Your task to perform on an android device: Search for pizza restaurants on Maps Image 0: 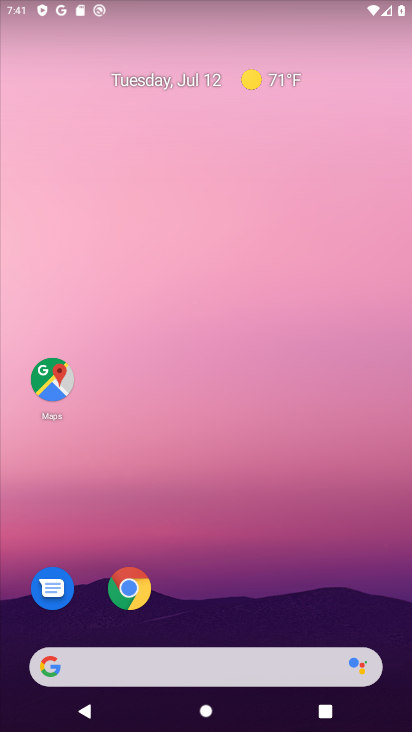
Step 0: click (57, 388)
Your task to perform on an android device: Search for pizza restaurants on Maps Image 1: 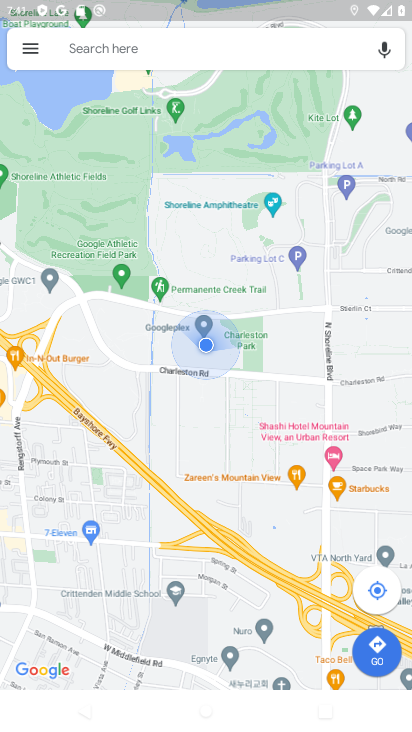
Step 1: click (104, 57)
Your task to perform on an android device: Search for pizza restaurants on Maps Image 2: 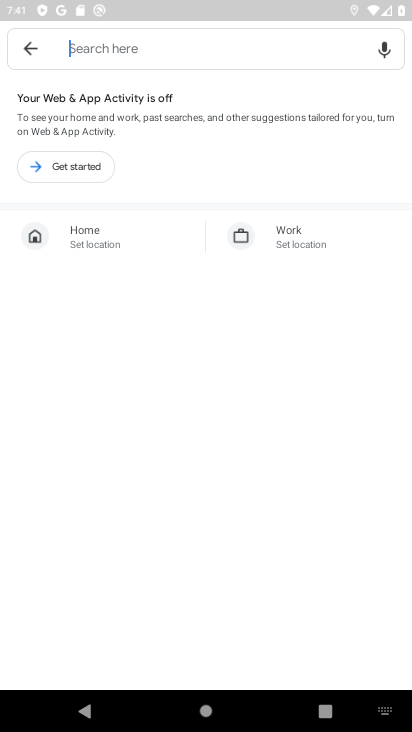
Step 2: type "pizza restaurants"
Your task to perform on an android device: Search for pizza restaurants on Maps Image 3: 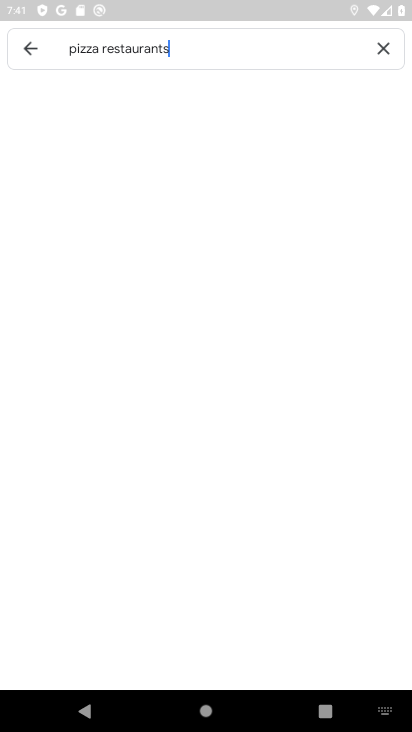
Step 3: type ""
Your task to perform on an android device: Search for pizza restaurants on Maps Image 4: 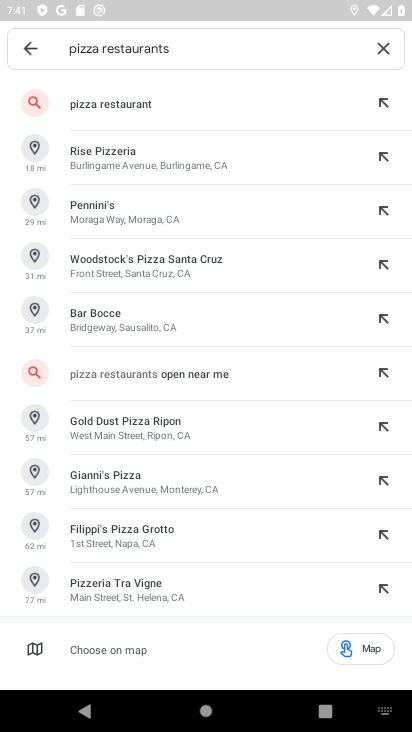
Step 4: click (137, 104)
Your task to perform on an android device: Search for pizza restaurants on Maps Image 5: 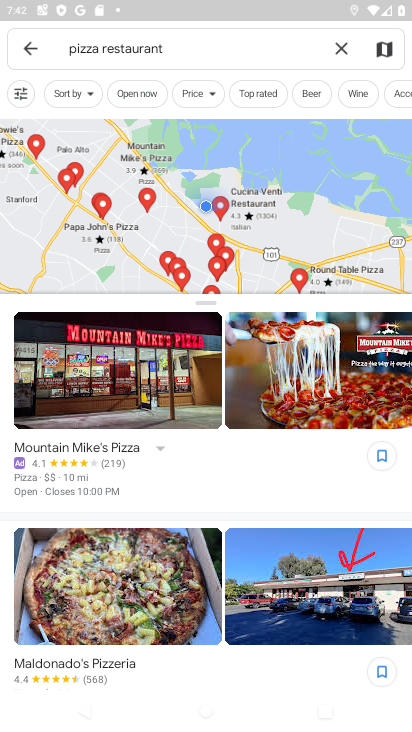
Step 5: task complete